Your task to perform on an android device: Go to ESPN.com Image 0: 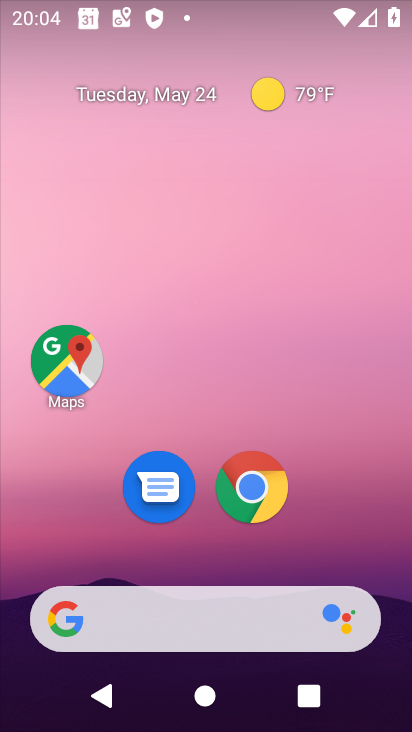
Step 0: press home button
Your task to perform on an android device: Go to ESPN.com Image 1: 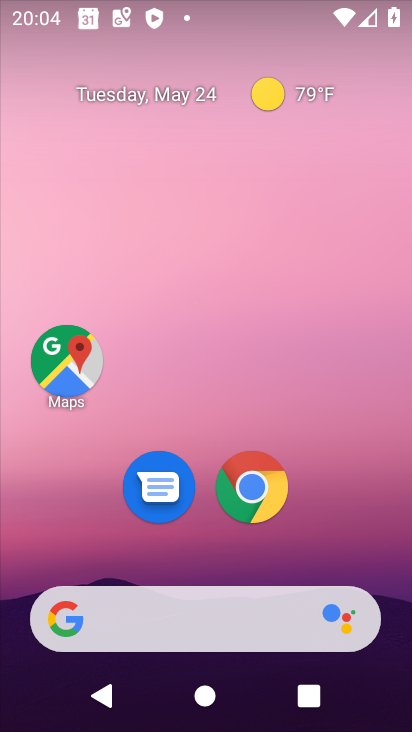
Step 1: click (256, 482)
Your task to perform on an android device: Go to ESPN.com Image 2: 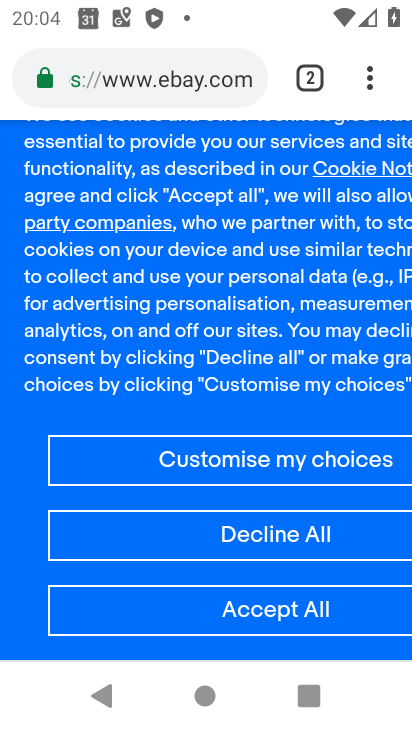
Step 2: click (317, 68)
Your task to perform on an android device: Go to ESPN.com Image 3: 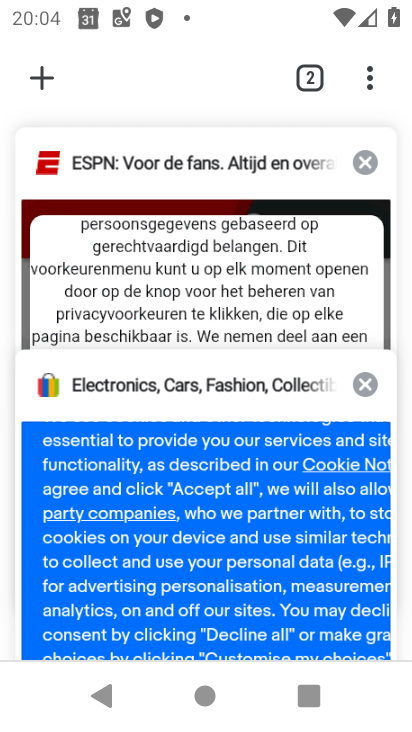
Step 3: click (369, 384)
Your task to perform on an android device: Go to ESPN.com Image 4: 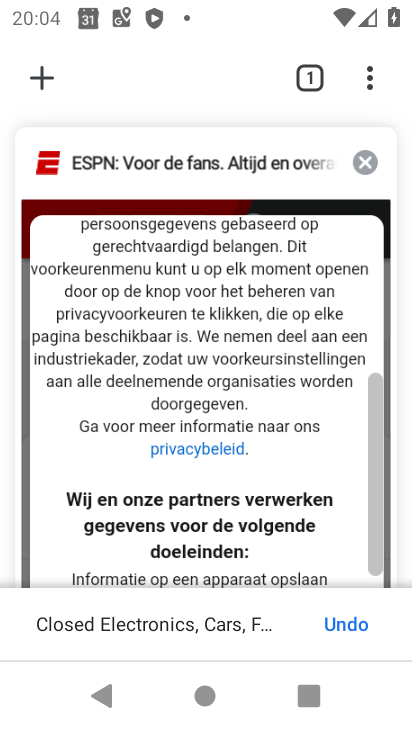
Step 4: click (256, 347)
Your task to perform on an android device: Go to ESPN.com Image 5: 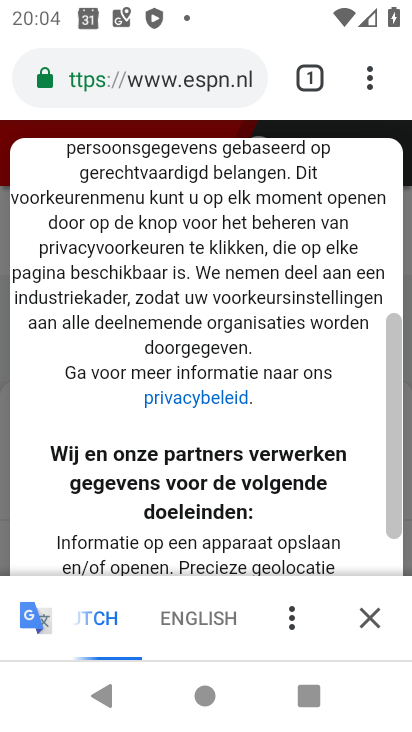
Step 5: task complete